Your task to perform on an android device: find which apps use the phone's location Image 0: 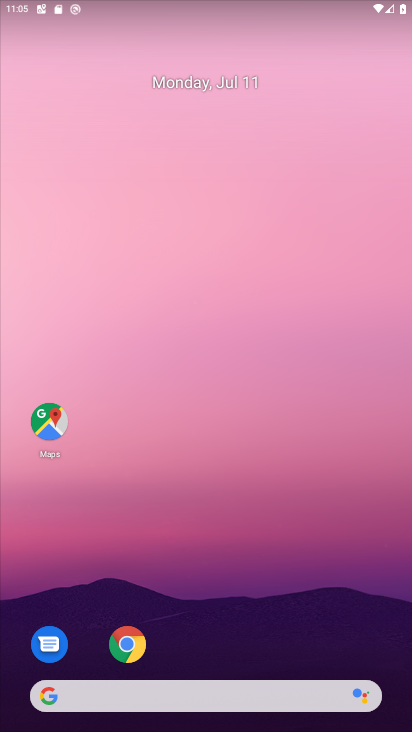
Step 0: drag from (262, 638) to (254, 165)
Your task to perform on an android device: find which apps use the phone's location Image 1: 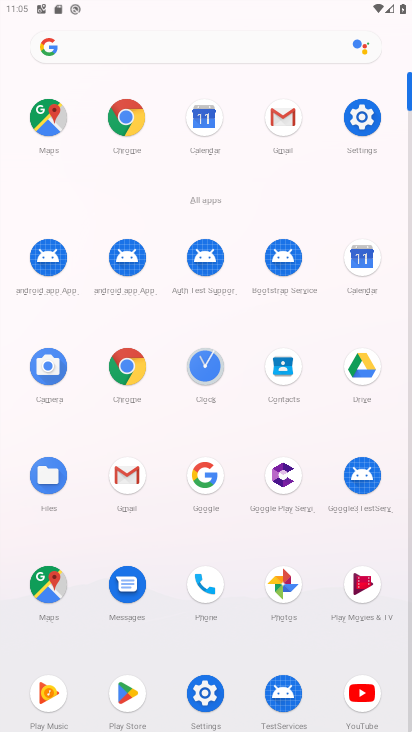
Step 1: click (362, 109)
Your task to perform on an android device: find which apps use the phone's location Image 2: 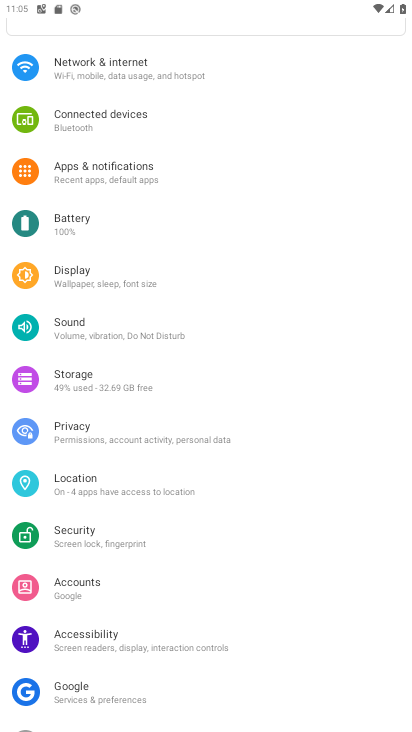
Step 2: click (105, 475)
Your task to perform on an android device: find which apps use the phone's location Image 3: 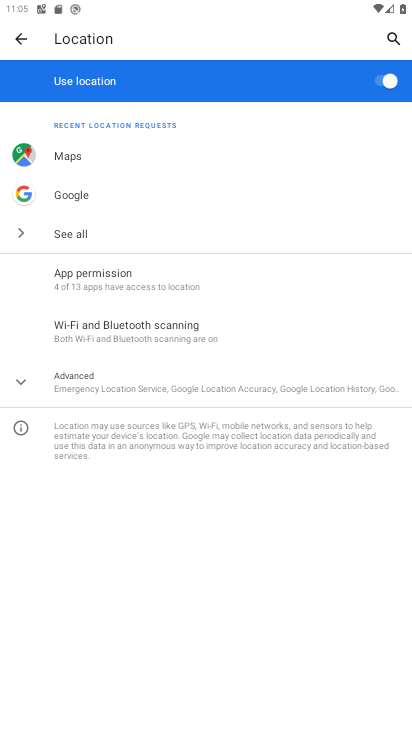
Step 3: click (207, 266)
Your task to perform on an android device: find which apps use the phone's location Image 4: 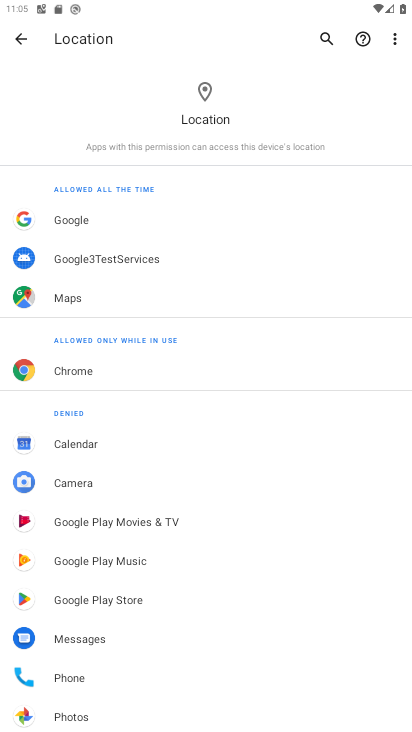
Step 4: task complete